Your task to perform on an android device: Open Reddit.com Image 0: 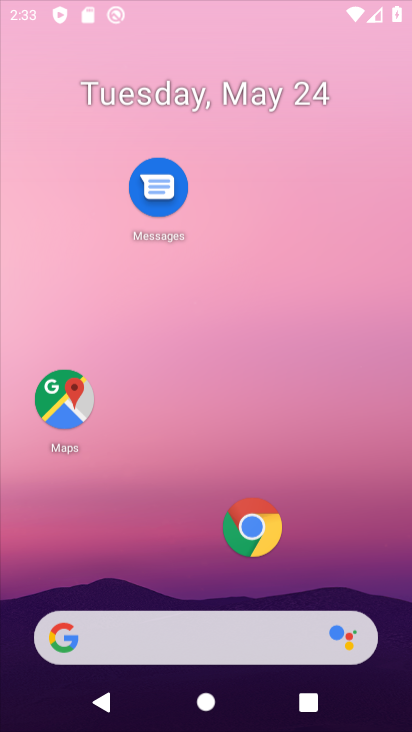
Step 0: click (362, 294)
Your task to perform on an android device: Open Reddit.com Image 1: 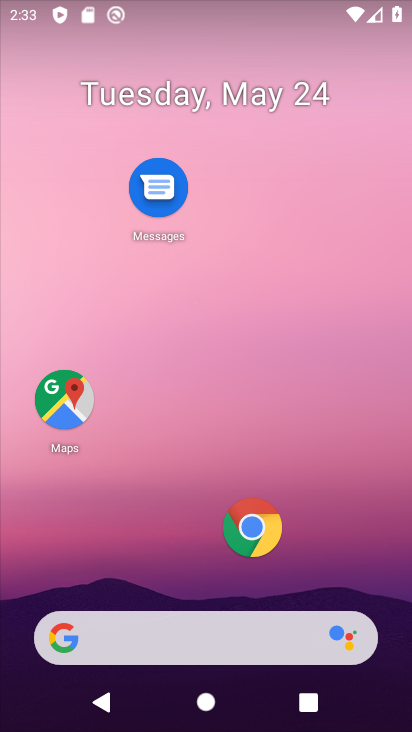
Step 1: click (250, 530)
Your task to perform on an android device: Open Reddit.com Image 2: 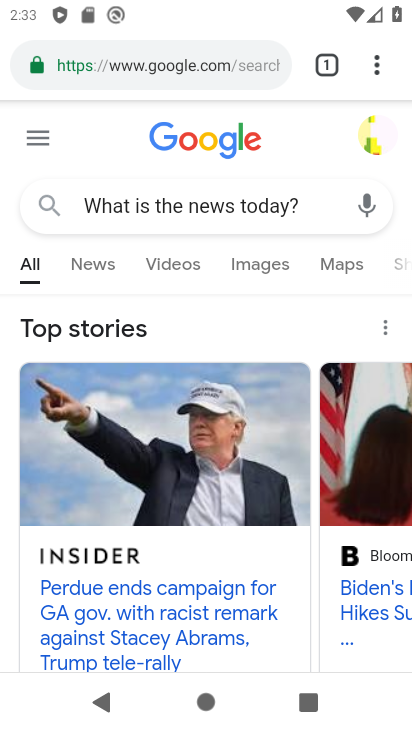
Step 2: click (127, 65)
Your task to perform on an android device: Open Reddit.com Image 3: 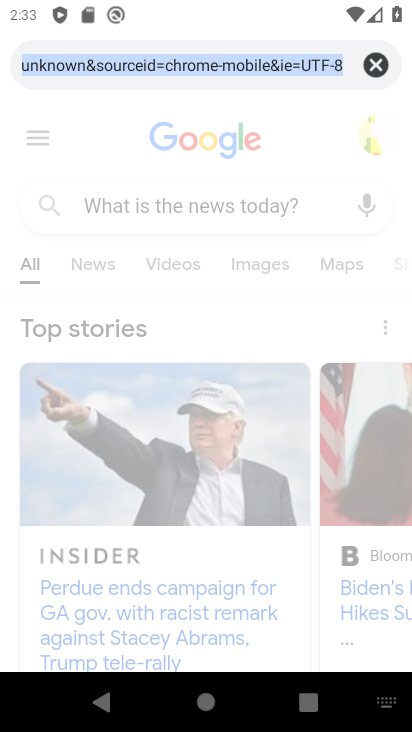
Step 3: type "Reddit.com"
Your task to perform on an android device: Open Reddit.com Image 4: 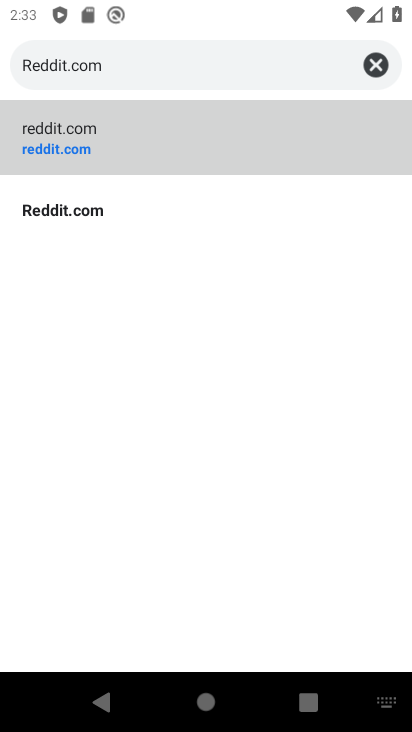
Step 4: click (118, 134)
Your task to perform on an android device: Open Reddit.com Image 5: 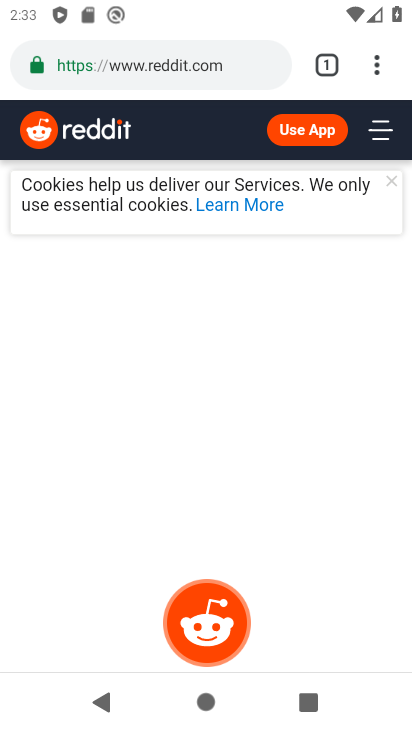
Step 5: task complete